Your task to perform on an android device: Add logitech g903 to the cart on ebay.com Image 0: 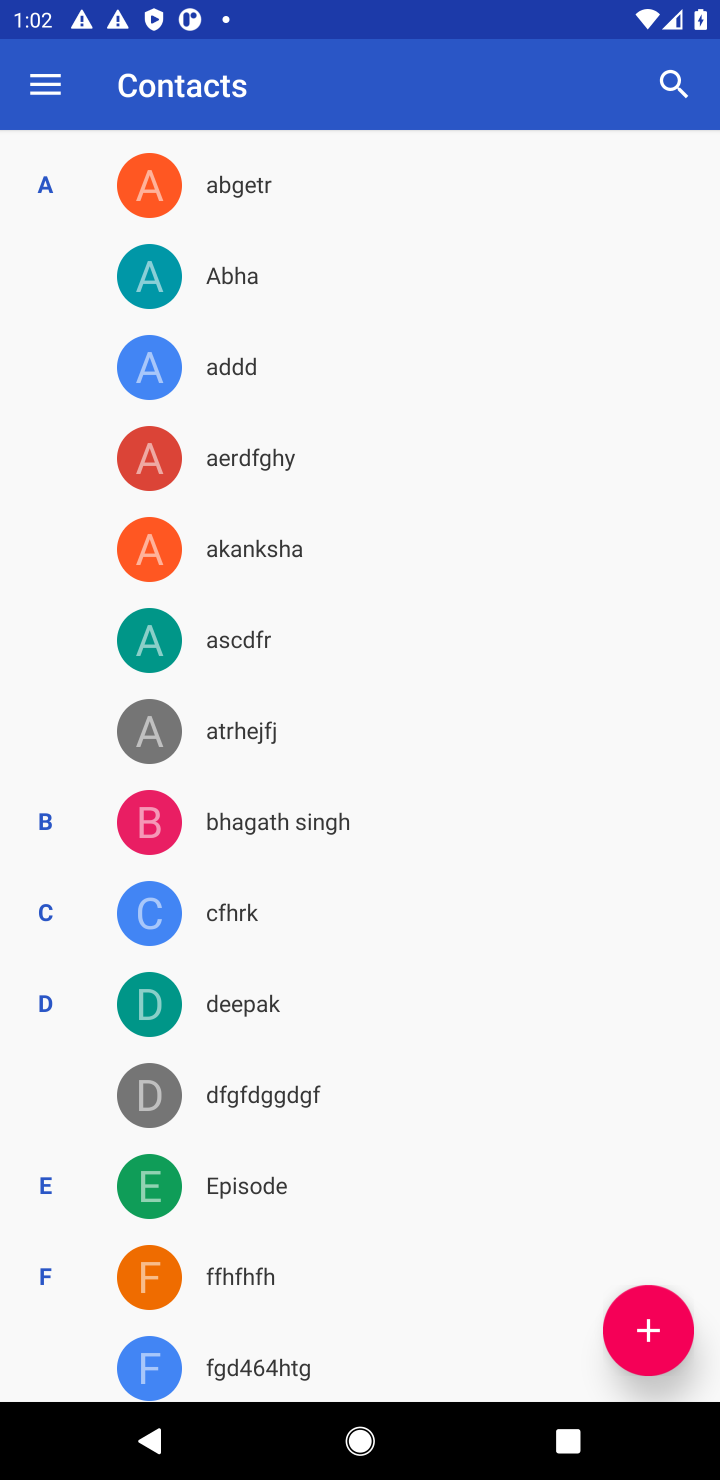
Step 0: press home button
Your task to perform on an android device: Add logitech g903 to the cart on ebay.com Image 1: 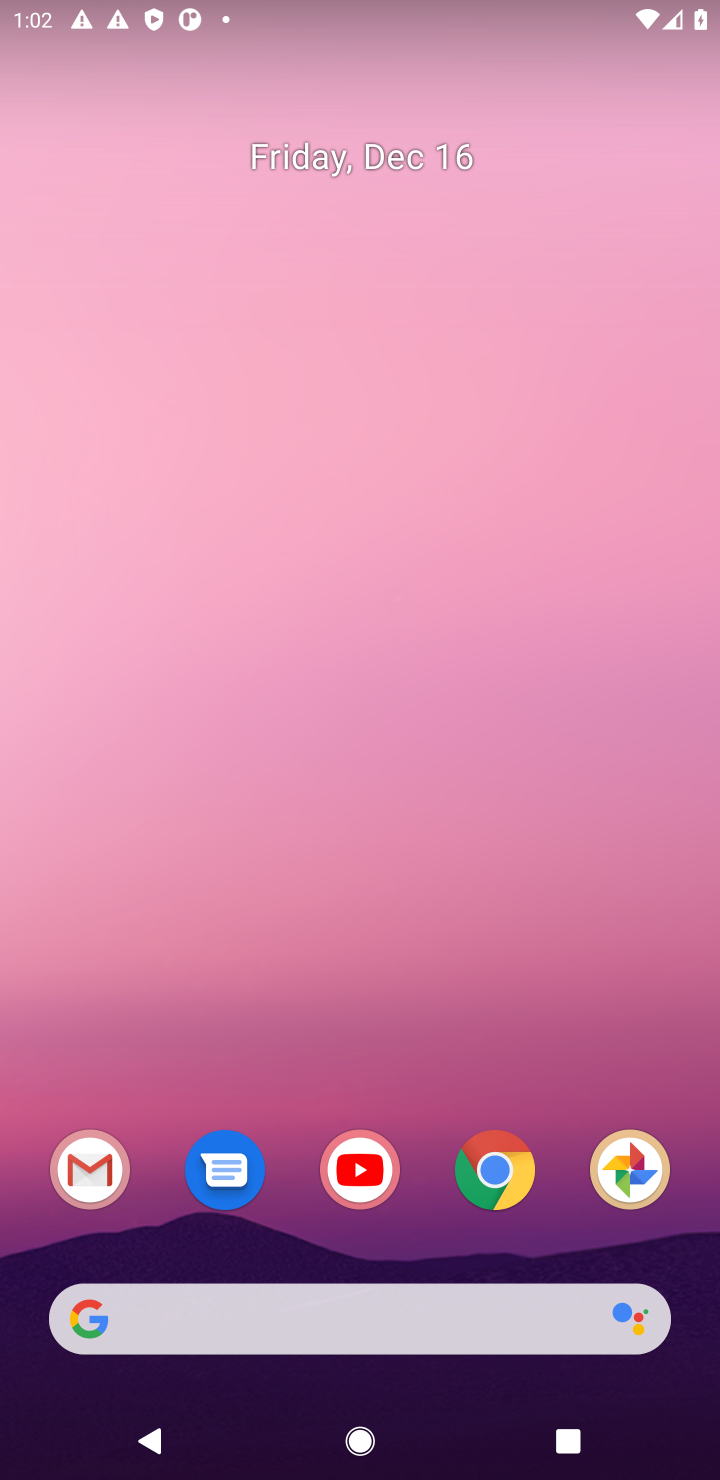
Step 1: click (500, 1181)
Your task to perform on an android device: Add logitech g903 to the cart on ebay.com Image 2: 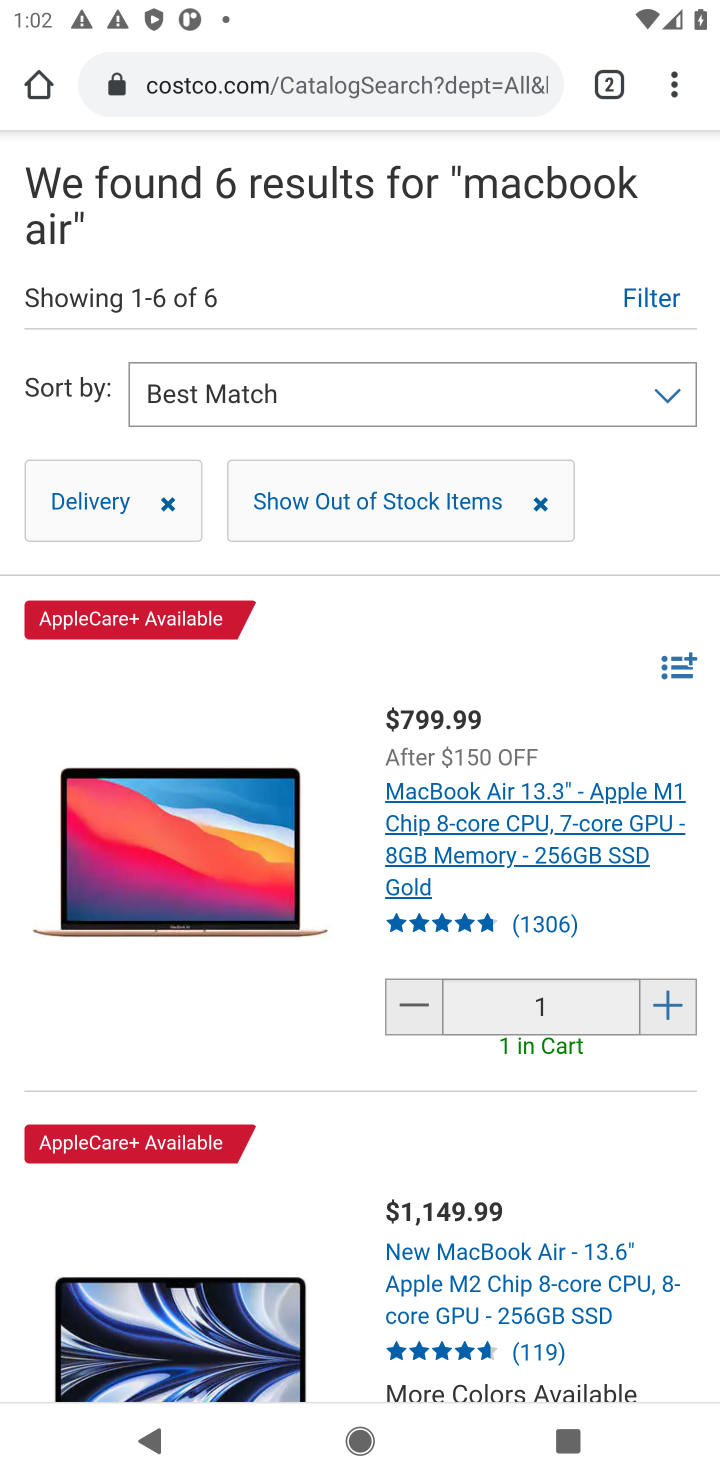
Step 2: click (236, 84)
Your task to perform on an android device: Add logitech g903 to the cart on ebay.com Image 3: 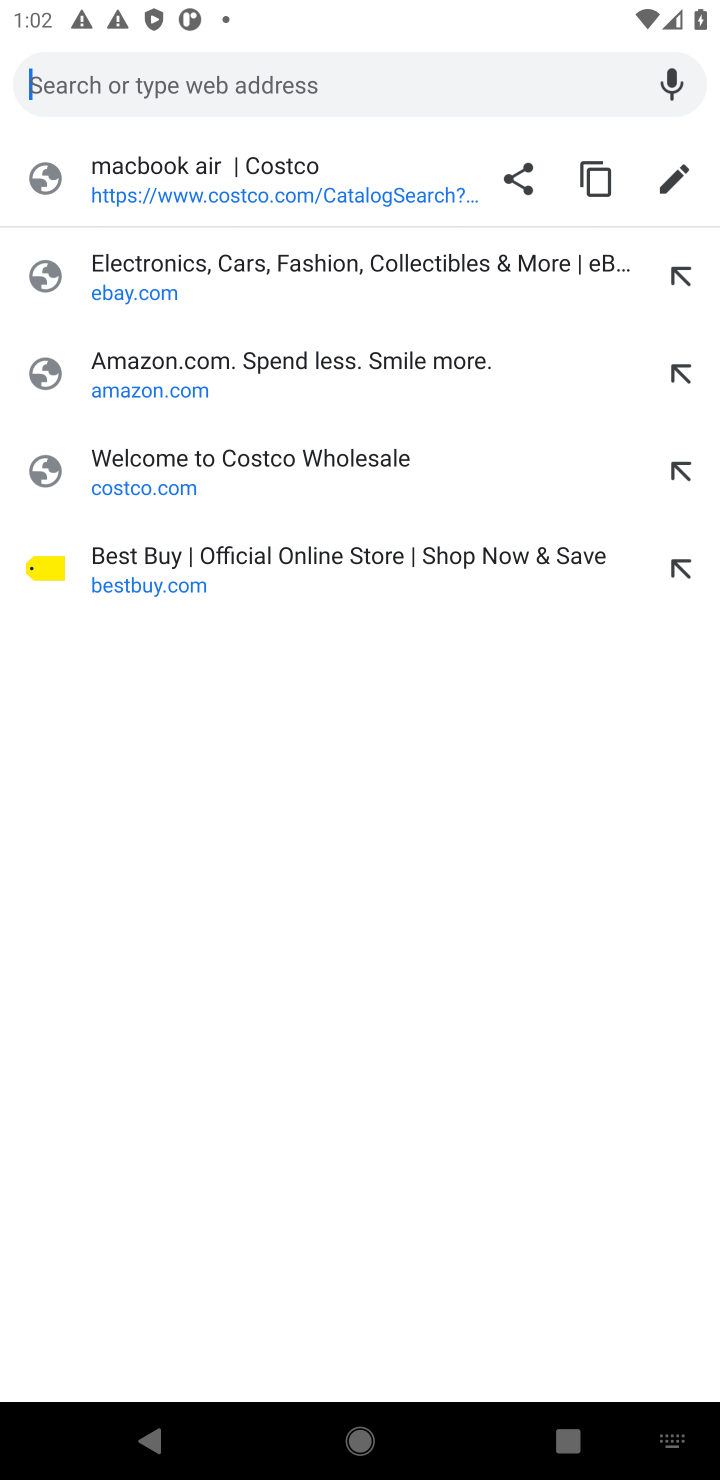
Step 3: click (170, 280)
Your task to perform on an android device: Add logitech g903 to the cart on ebay.com Image 4: 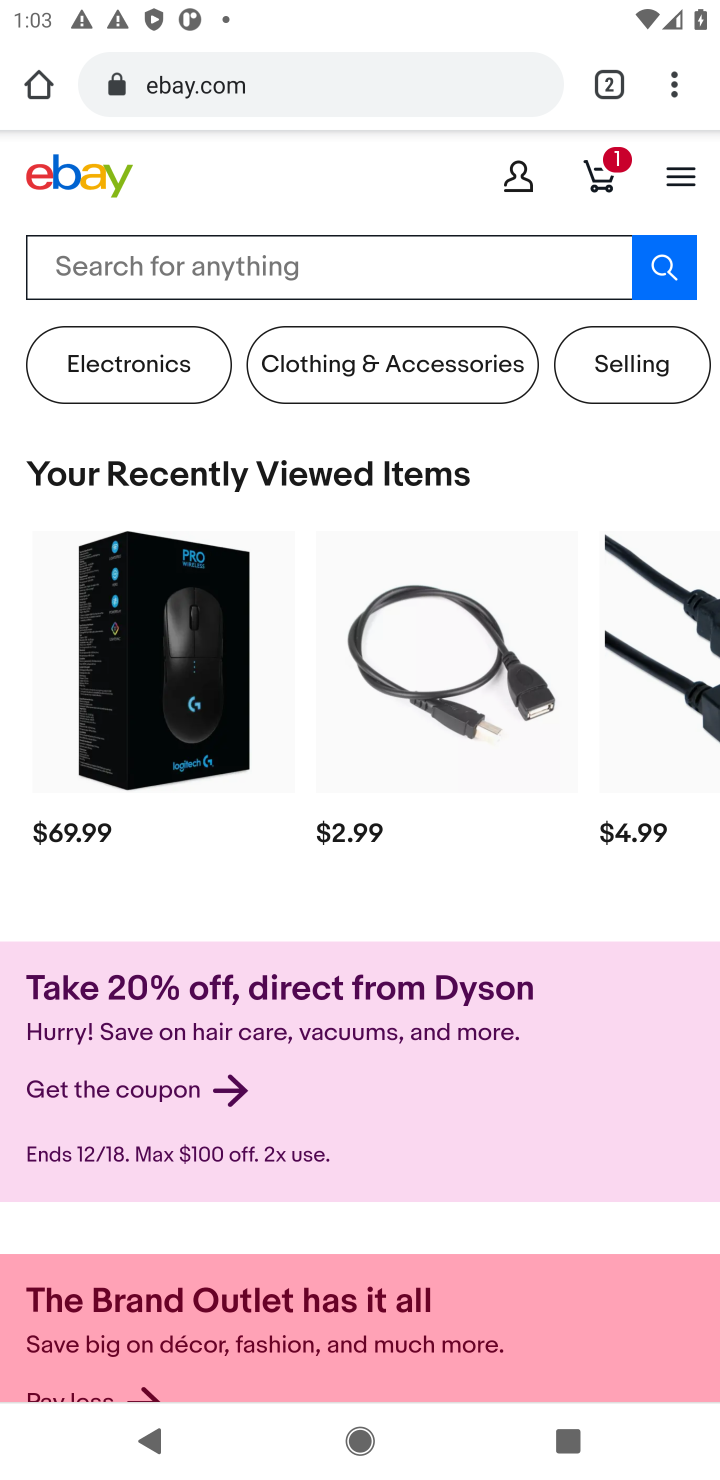
Step 4: click (186, 273)
Your task to perform on an android device: Add logitech g903 to the cart on ebay.com Image 5: 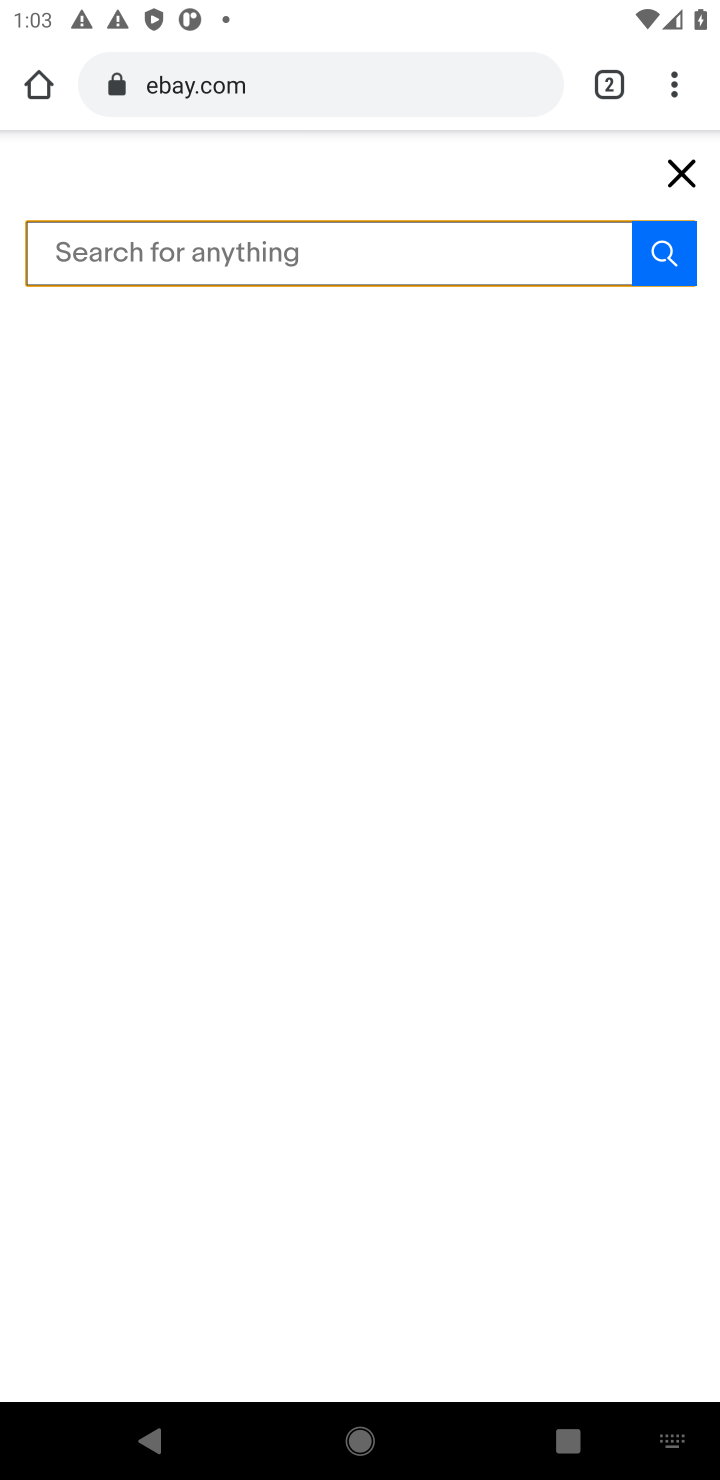
Step 5: type "logitech g903"
Your task to perform on an android device: Add logitech g903 to the cart on ebay.com Image 6: 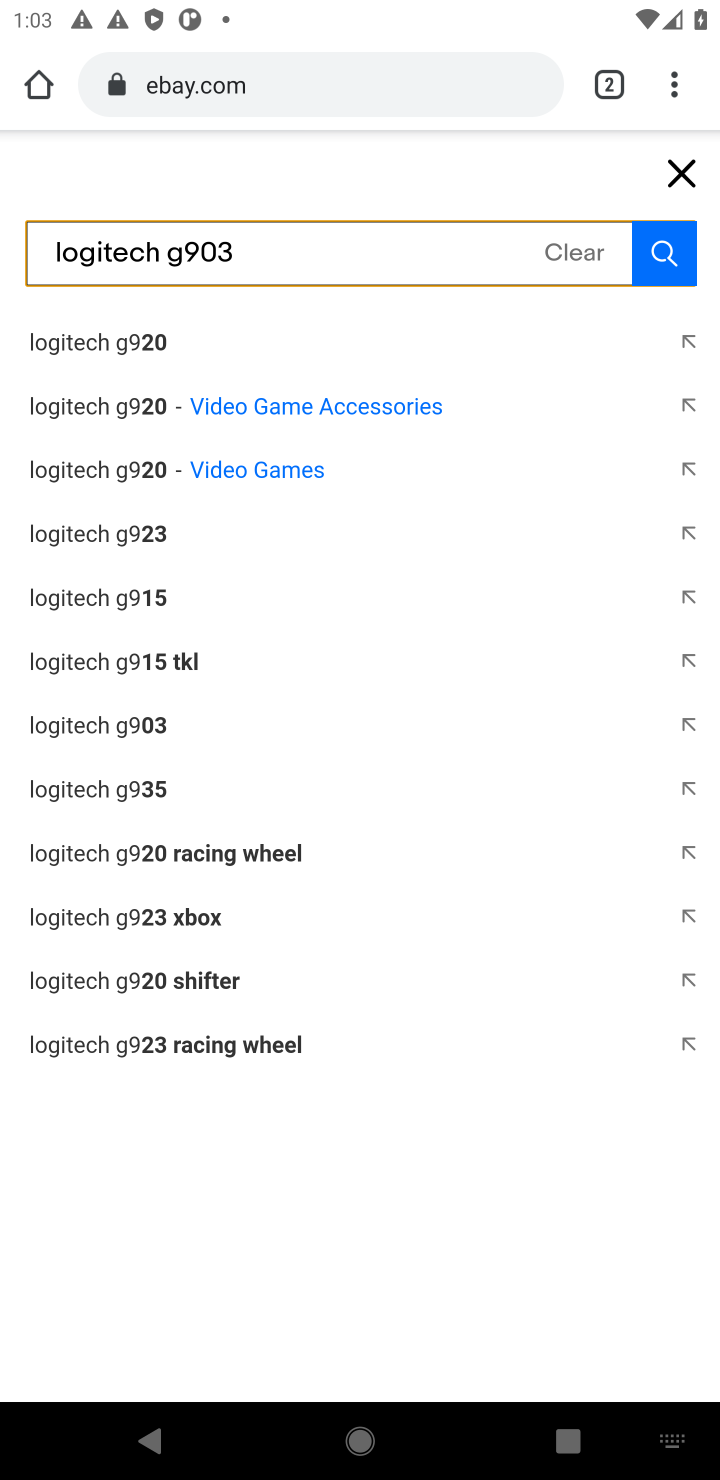
Step 6: click (662, 250)
Your task to perform on an android device: Add logitech g903 to the cart on ebay.com Image 7: 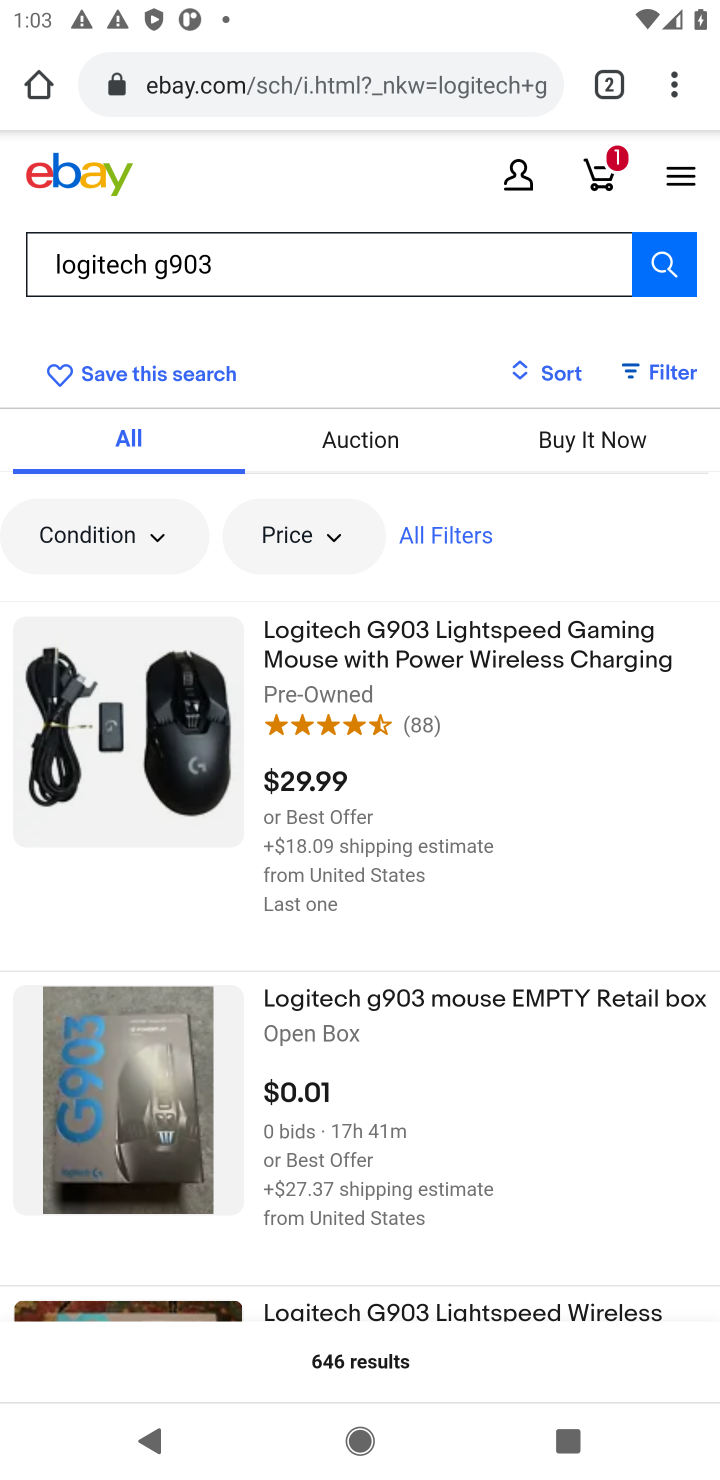
Step 7: click (312, 651)
Your task to perform on an android device: Add logitech g903 to the cart on ebay.com Image 8: 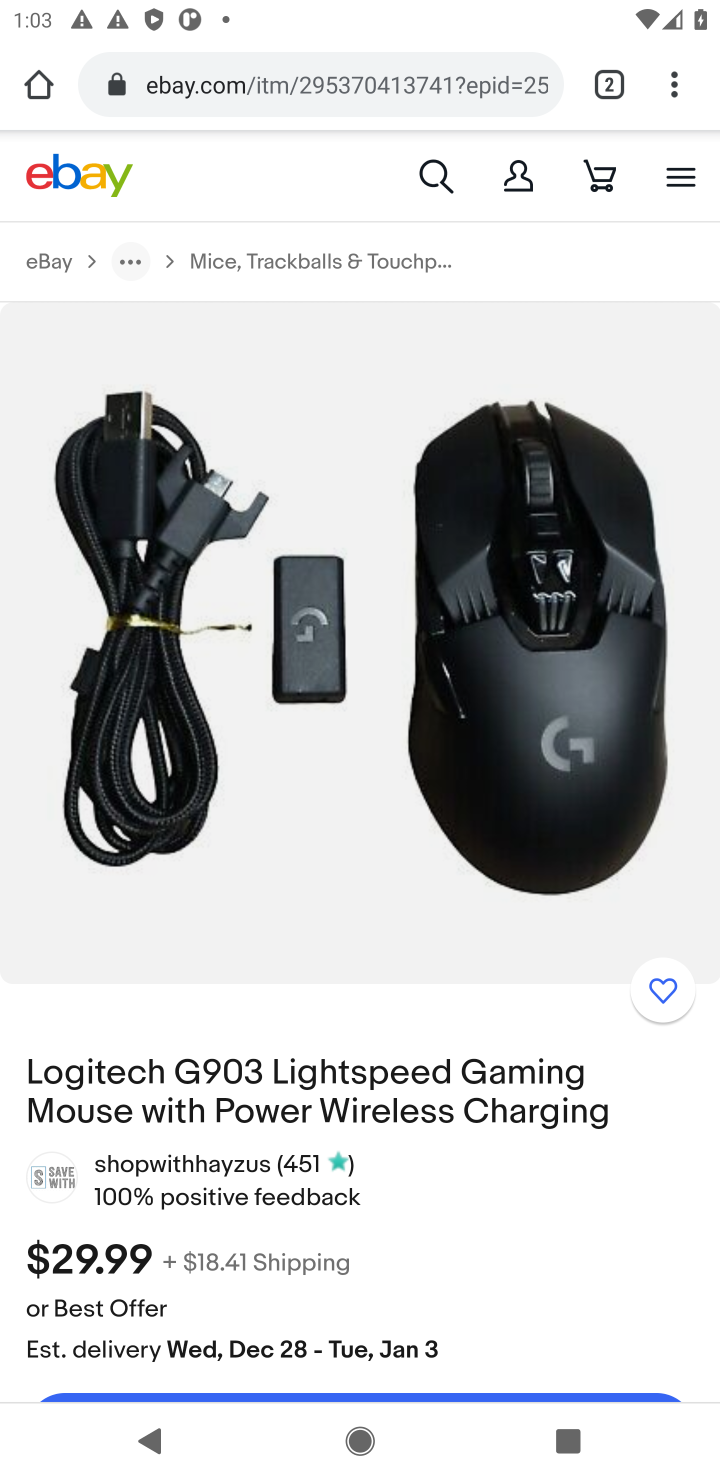
Step 8: drag from (348, 1080) to (348, 550)
Your task to perform on an android device: Add logitech g903 to the cart on ebay.com Image 9: 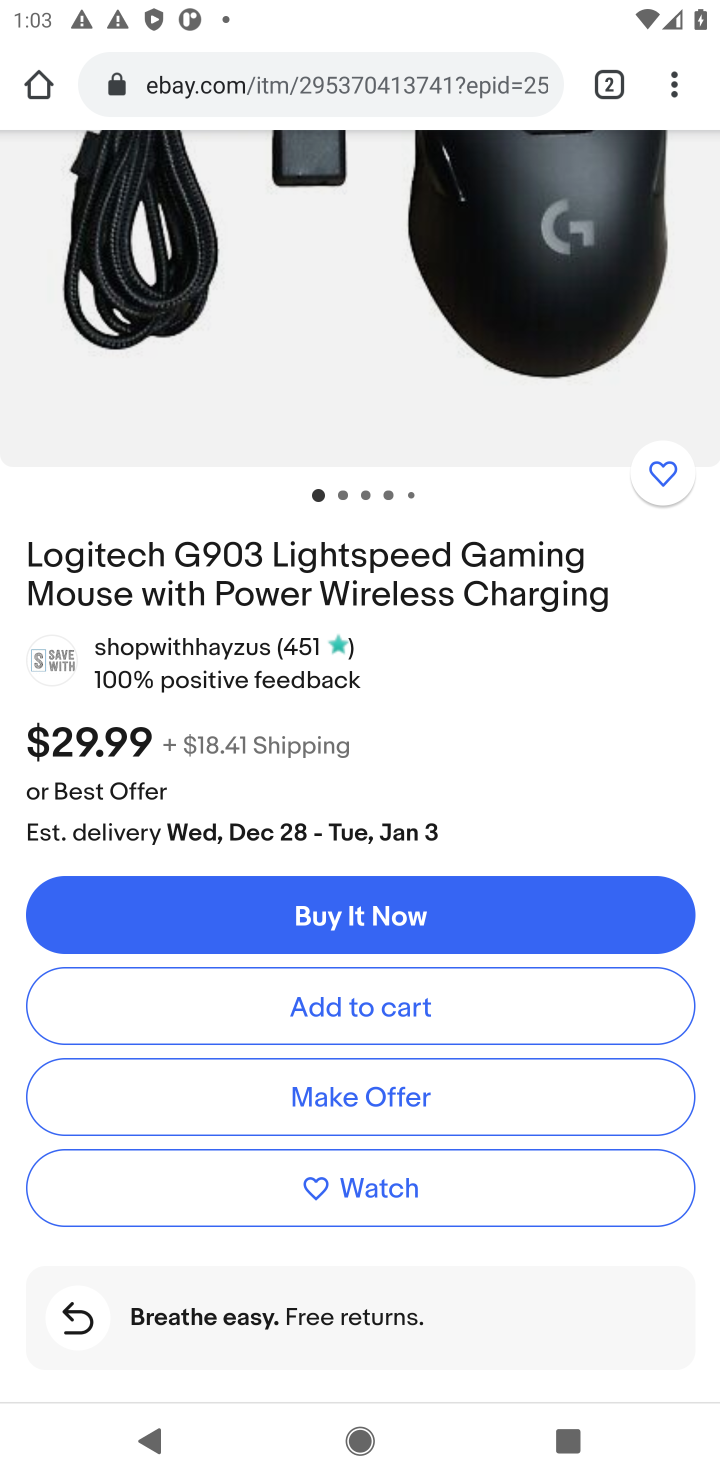
Step 9: click (323, 1006)
Your task to perform on an android device: Add logitech g903 to the cart on ebay.com Image 10: 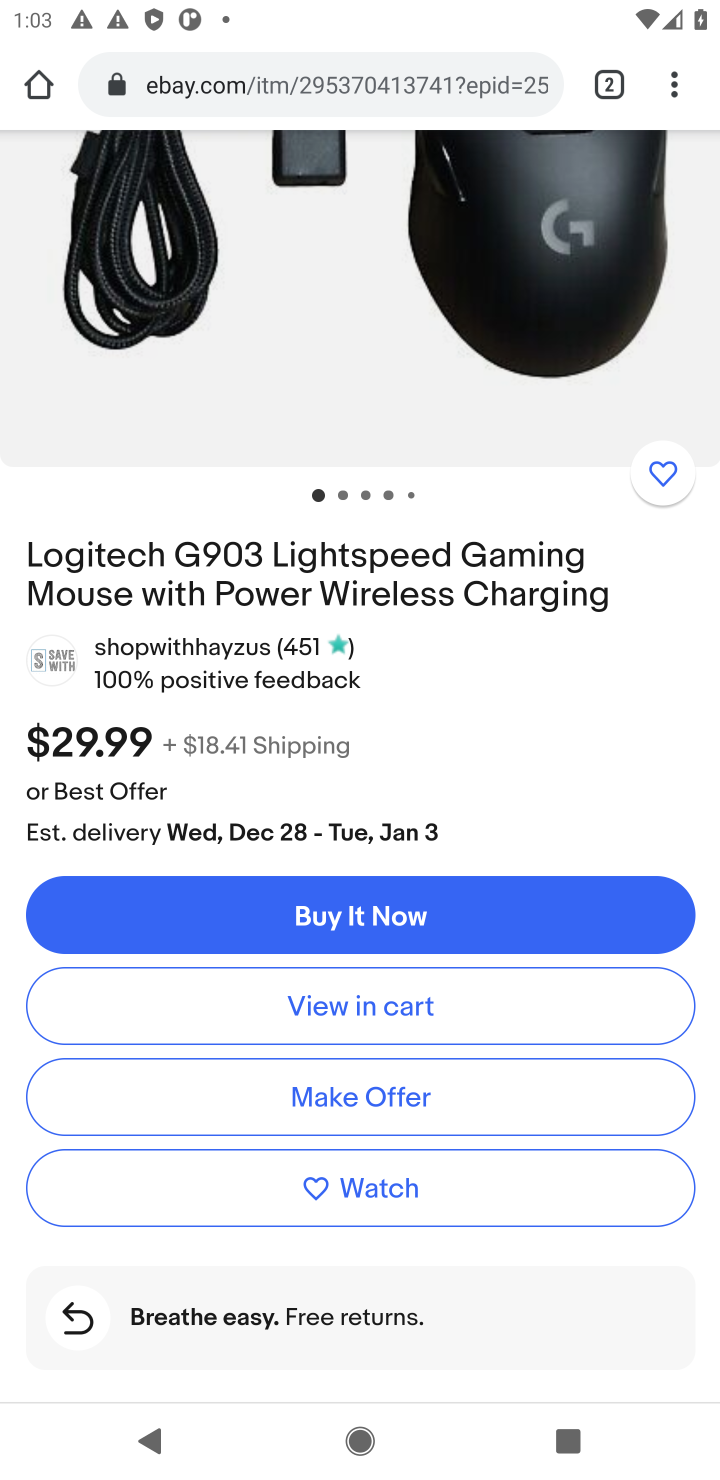
Step 10: task complete